Your task to perform on an android device: Open Yahoo.com Image 0: 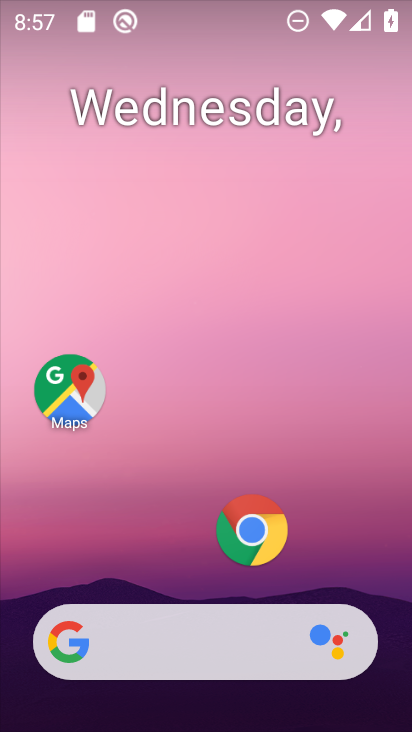
Step 0: click (250, 533)
Your task to perform on an android device: Open Yahoo.com Image 1: 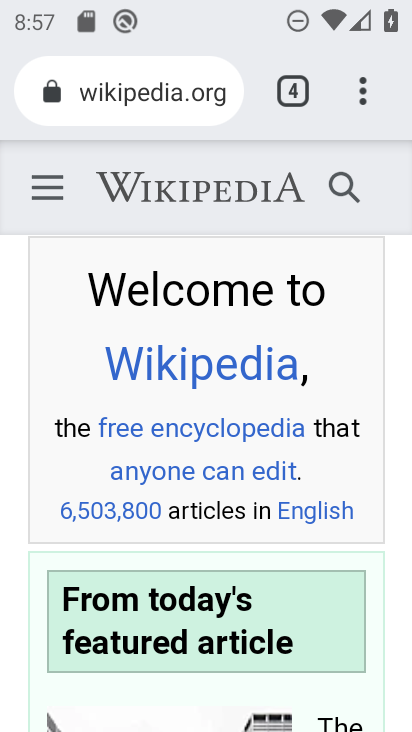
Step 1: click (302, 98)
Your task to perform on an android device: Open Yahoo.com Image 2: 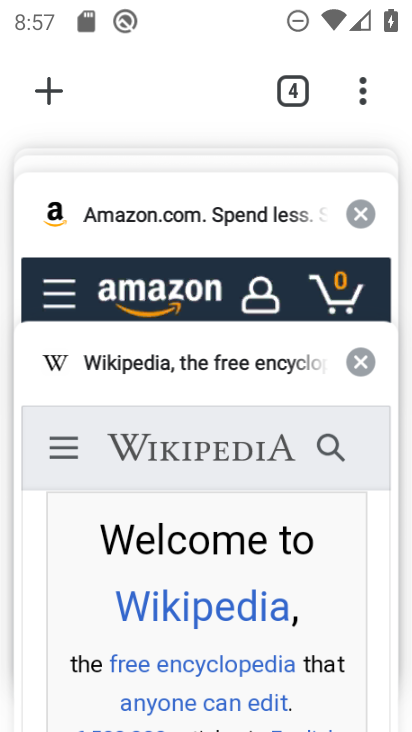
Step 2: click (49, 95)
Your task to perform on an android device: Open Yahoo.com Image 3: 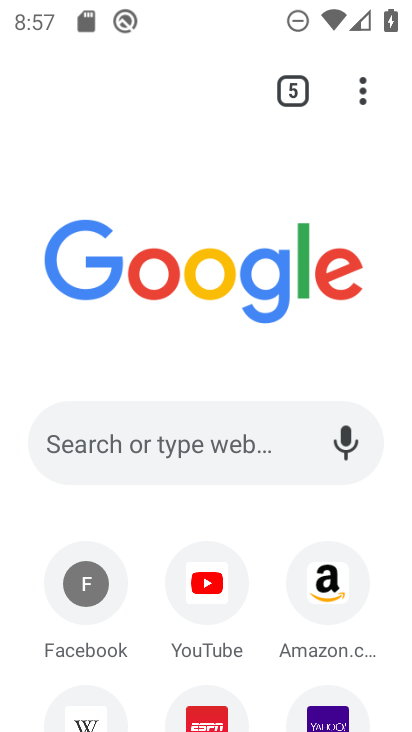
Step 3: click (317, 705)
Your task to perform on an android device: Open Yahoo.com Image 4: 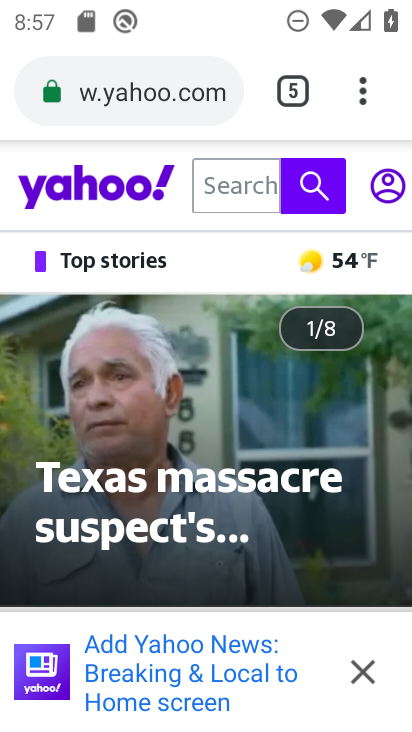
Step 4: task complete